Your task to perform on an android device: turn pop-ups off in chrome Image 0: 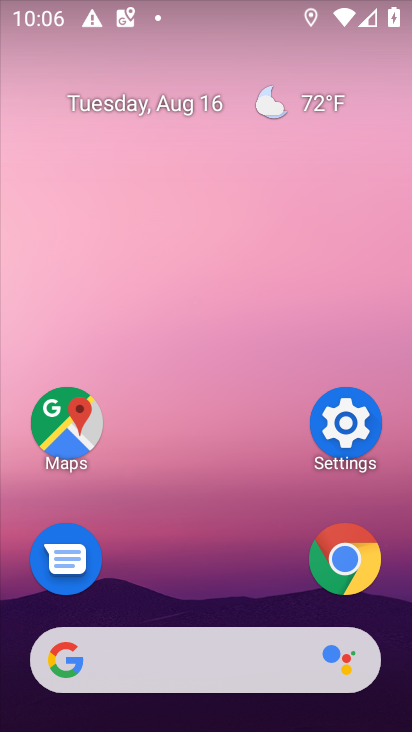
Step 0: click (344, 548)
Your task to perform on an android device: turn pop-ups off in chrome Image 1: 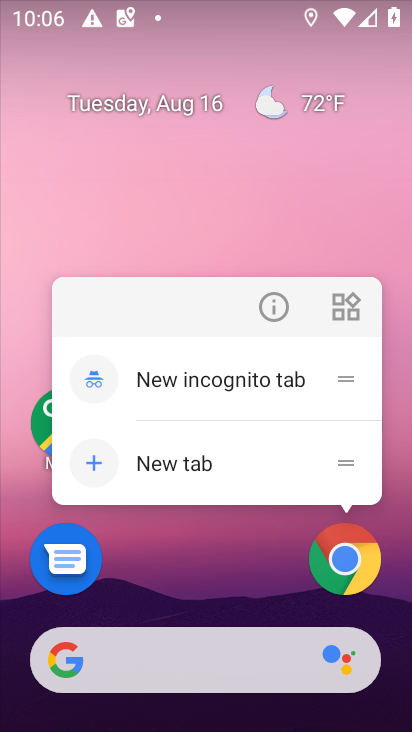
Step 1: click (345, 551)
Your task to perform on an android device: turn pop-ups off in chrome Image 2: 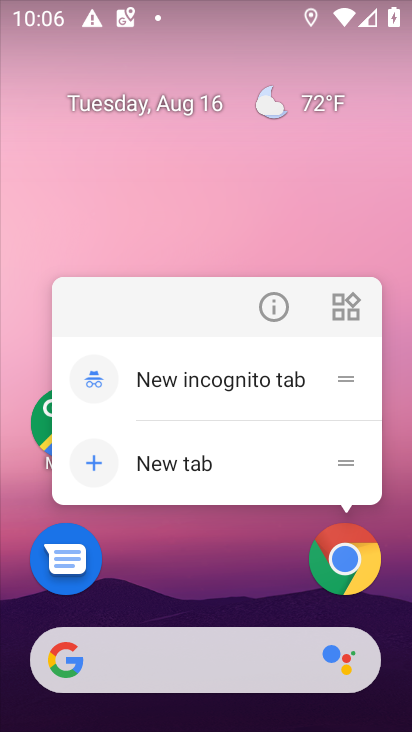
Step 2: click (343, 563)
Your task to perform on an android device: turn pop-ups off in chrome Image 3: 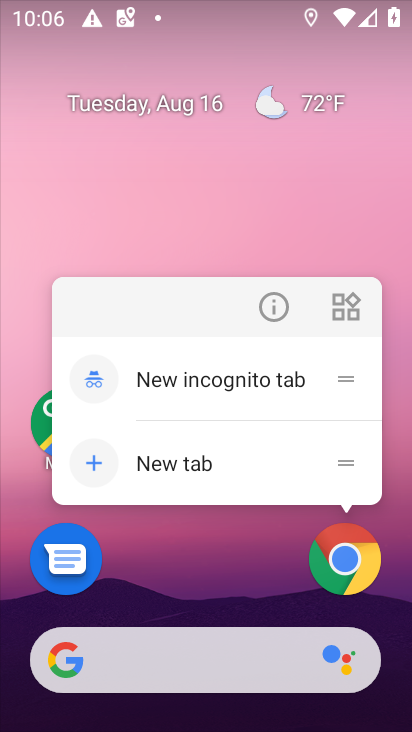
Step 3: click (343, 564)
Your task to perform on an android device: turn pop-ups off in chrome Image 4: 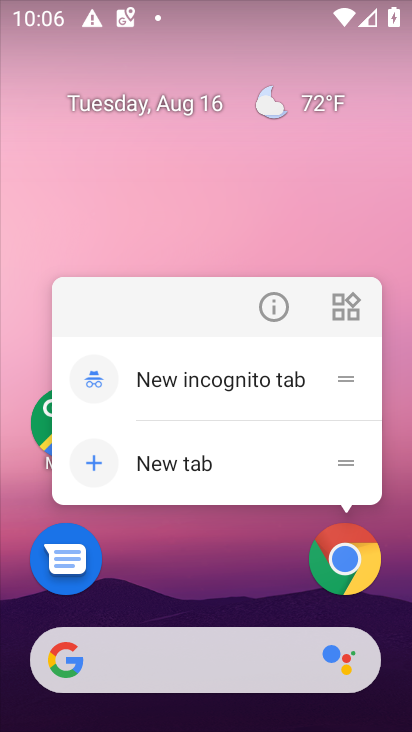
Step 4: click (343, 563)
Your task to perform on an android device: turn pop-ups off in chrome Image 5: 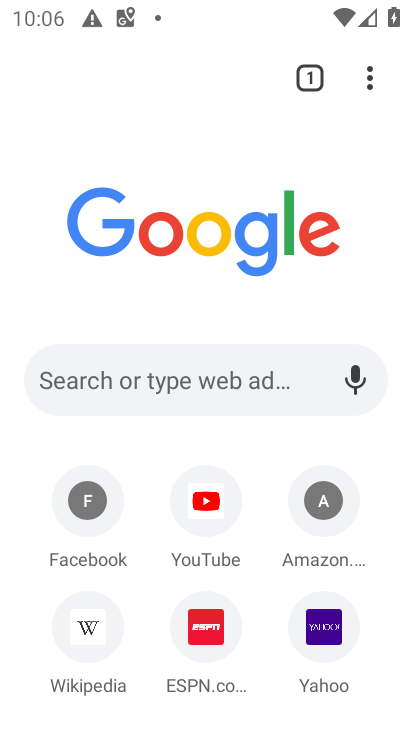
Step 5: drag from (370, 73) to (217, 638)
Your task to perform on an android device: turn pop-ups off in chrome Image 6: 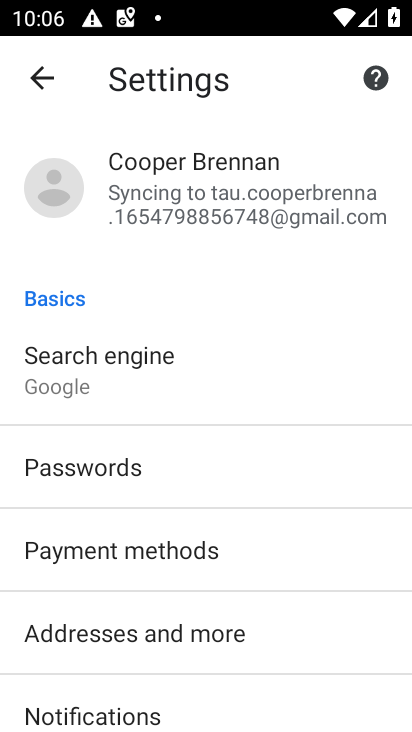
Step 6: drag from (267, 548) to (347, 151)
Your task to perform on an android device: turn pop-ups off in chrome Image 7: 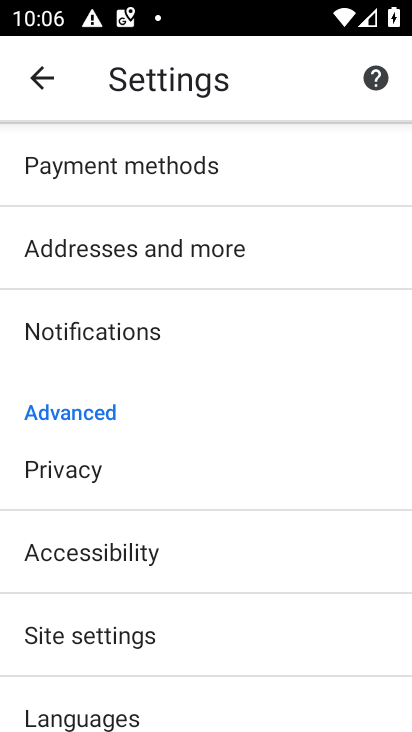
Step 7: click (119, 637)
Your task to perform on an android device: turn pop-ups off in chrome Image 8: 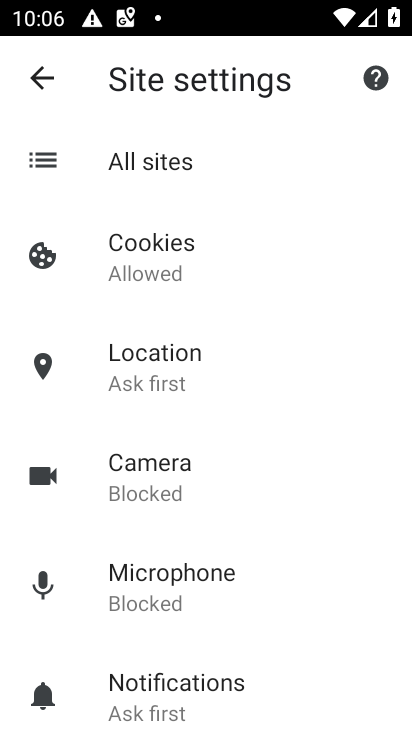
Step 8: drag from (286, 572) to (356, 163)
Your task to perform on an android device: turn pop-ups off in chrome Image 9: 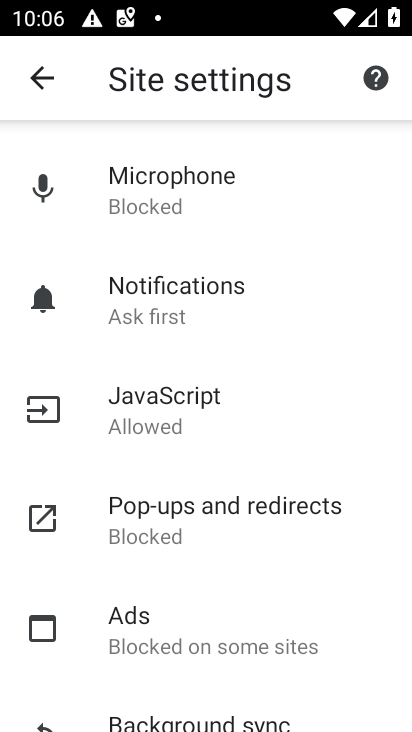
Step 9: click (217, 520)
Your task to perform on an android device: turn pop-ups off in chrome Image 10: 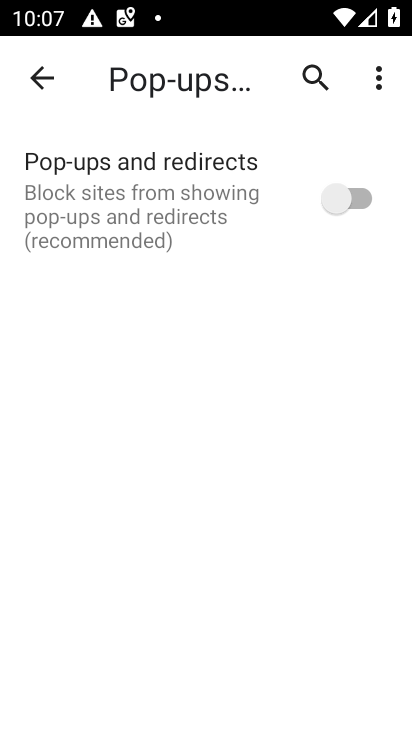
Step 10: task complete